Your task to perform on an android device: turn on the 12-hour format for clock Image 0: 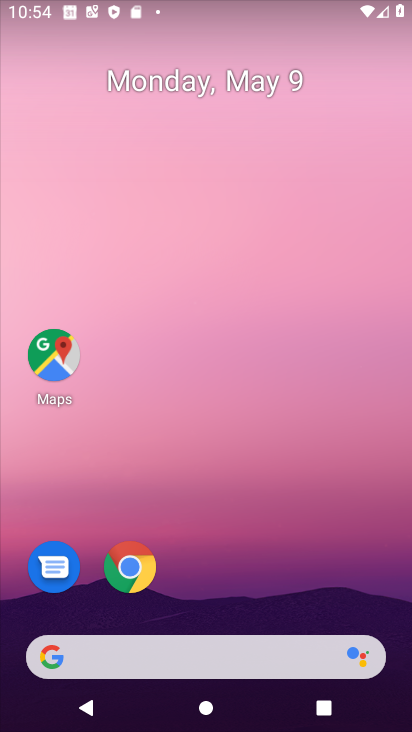
Step 0: drag from (174, 651) to (166, 89)
Your task to perform on an android device: turn on the 12-hour format for clock Image 1: 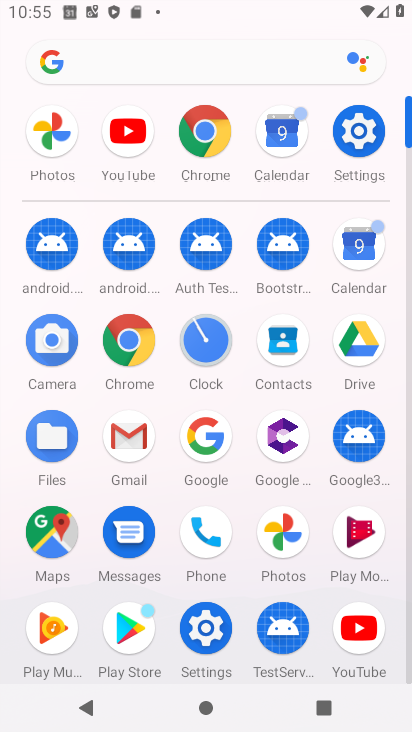
Step 1: click (357, 142)
Your task to perform on an android device: turn on the 12-hour format for clock Image 2: 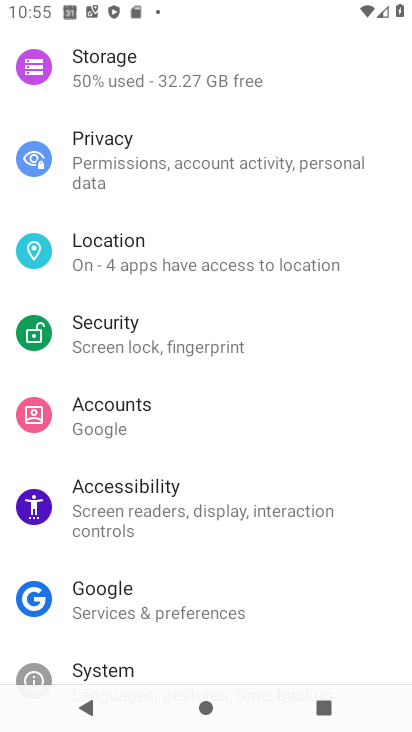
Step 2: drag from (217, 553) to (178, 129)
Your task to perform on an android device: turn on the 12-hour format for clock Image 3: 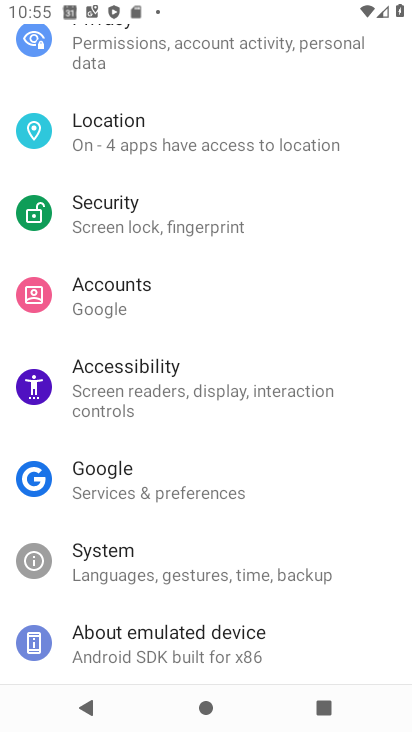
Step 3: click (152, 548)
Your task to perform on an android device: turn on the 12-hour format for clock Image 4: 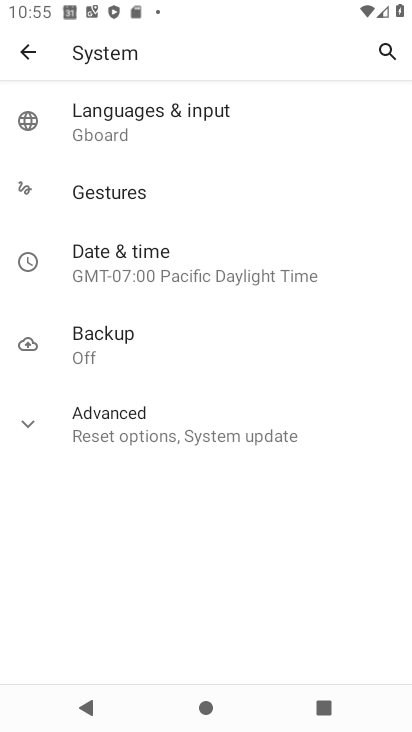
Step 4: click (100, 260)
Your task to perform on an android device: turn on the 12-hour format for clock Image 5: 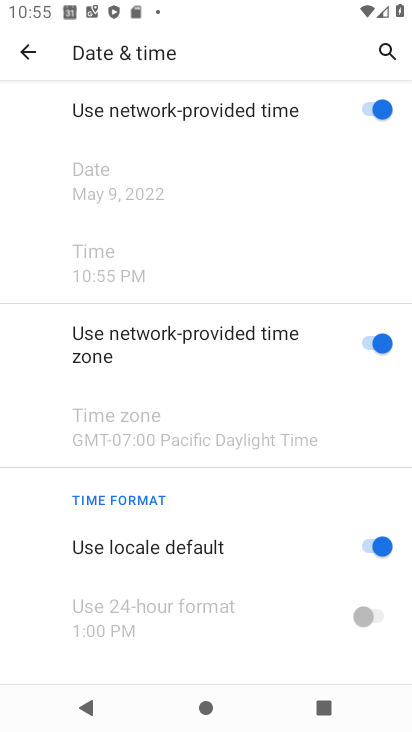
Step 5: task complete